Your task to perform on an android device: change timer sound Image 0: 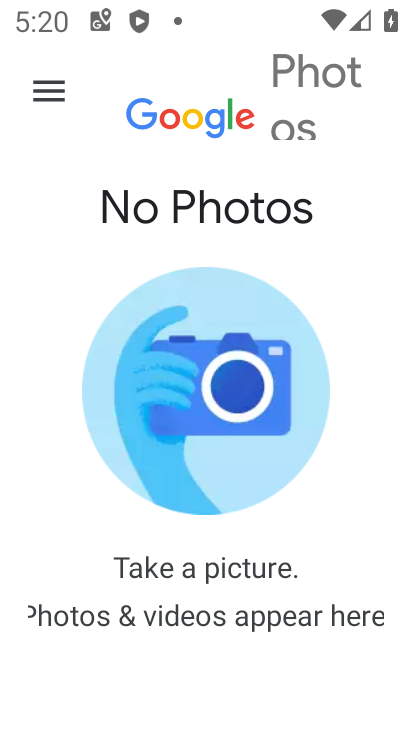
Step 0: press home button
Your task to perform on an android device: change timer sound Image 1: 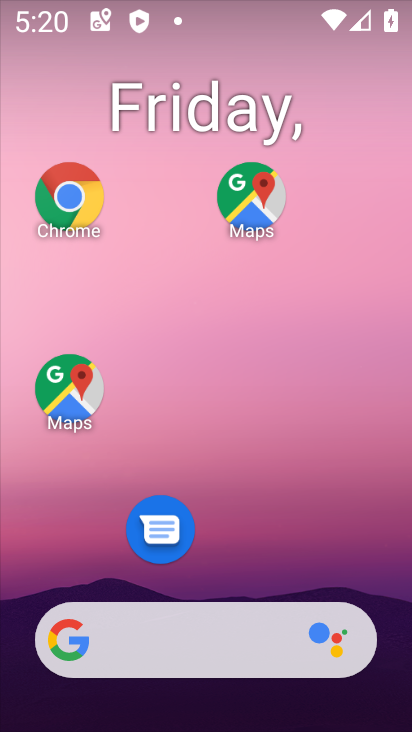
Step 1: drag from (234, 585) to (321, 147)
Your task to perform on an android device: change timer sound Image 2: 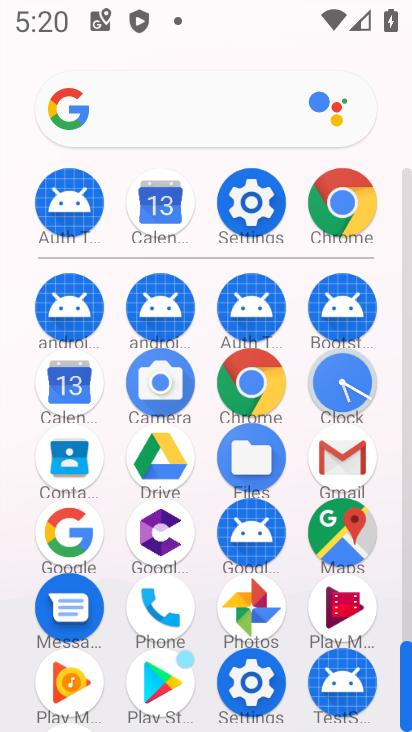
Step 2: click (334, 395)
Your task to perform on an android device: change timer sound Image 3: 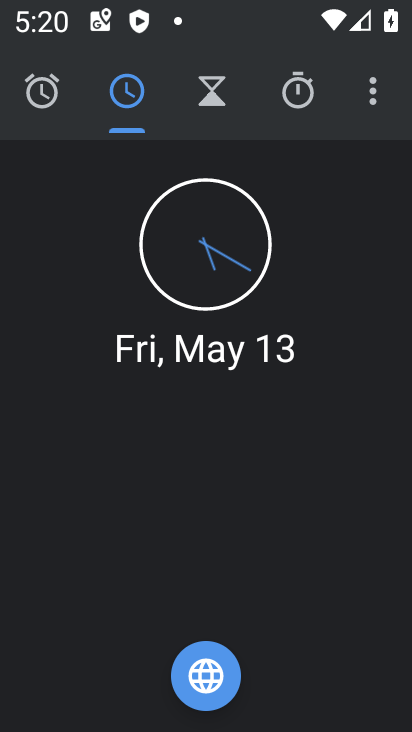
Step 3: click (372, 103)
Your task to perform on an android device: change timer sound Image 4: 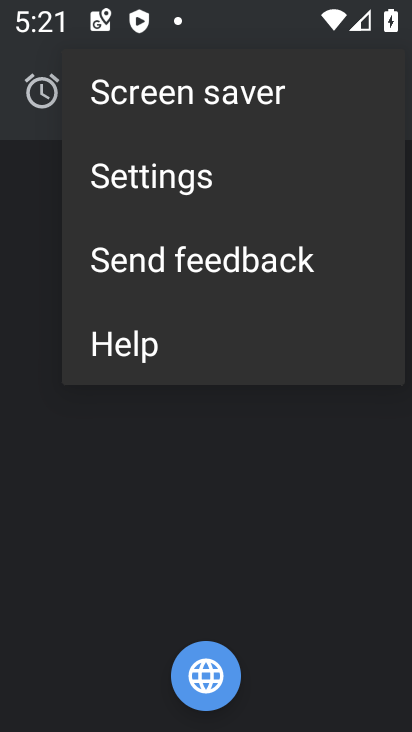
Step 4: click (149, 189)
Your task to perform on an android device: change timer sound Image 5: 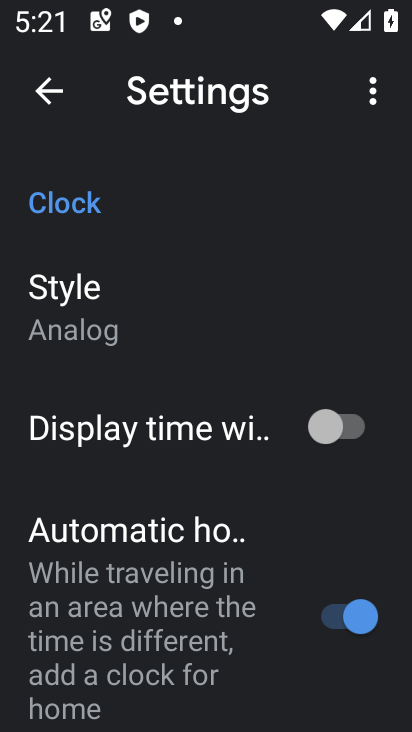
Step 5: drag from (126, 622) to (38, 394)
Your task to perform on an android device: change timer sound Image 6: 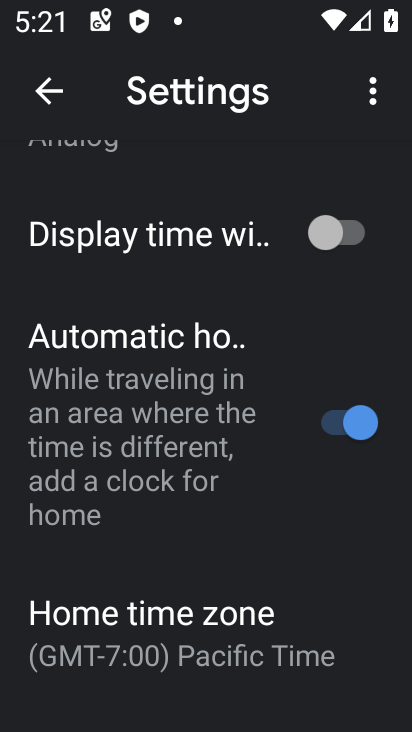
Step 6: drag from (159, 638) to (134, 357)
Your task to perform on an android device: change timer sound Image 7: 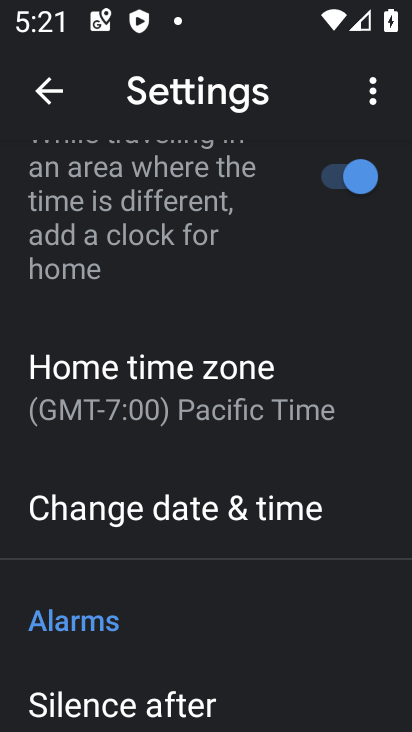
Step 7: drag from (236, 644) to (114, 369)
Your task to perform on an android device: change timer sound Image 8: 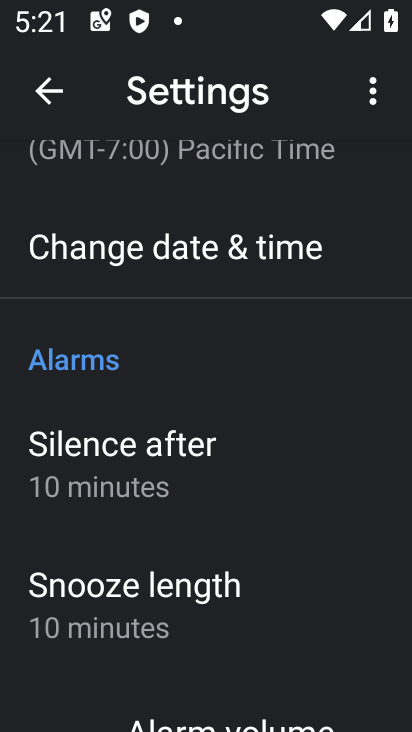
Step 8: drag from (187, 682) to (133, 327)
Your task to perform on an android device: change timer sound Image 9: 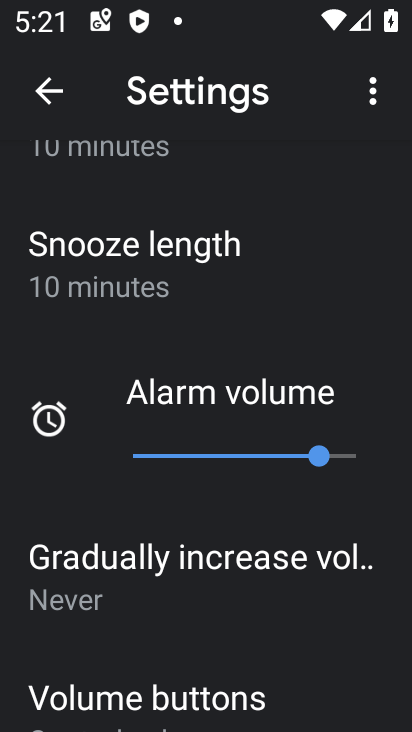
Step 9: drag from (203, 643) to (160, 410)
Your task to perform on an android device: change timer sound Image 10: 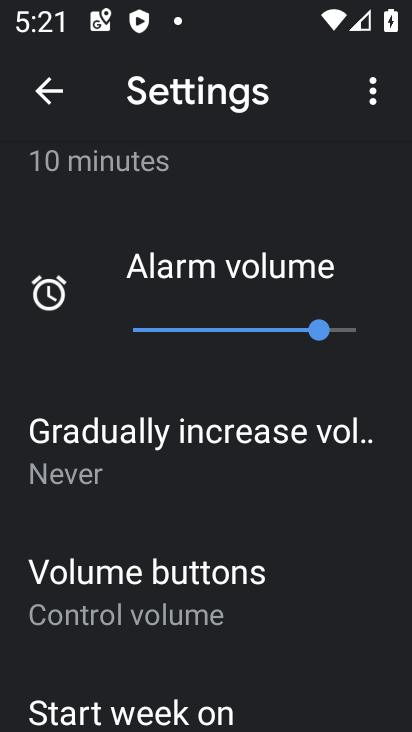
Step 10: drag from (245, 651) to (133, 452)
Your task to perform on an android device: change timer sound Image 11: 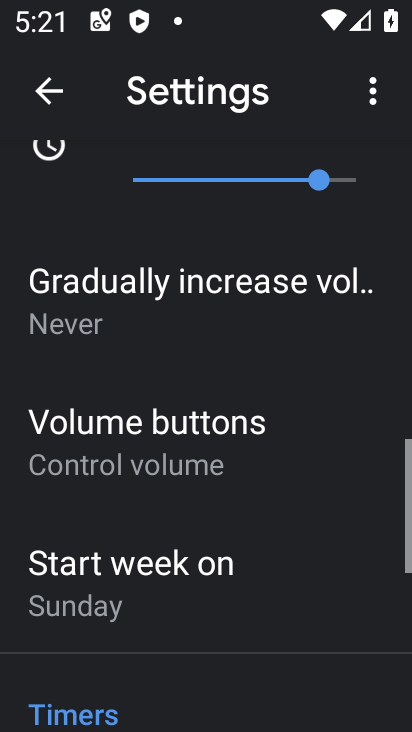
Step 11: drag from (203, 604) to (6, 486)
Your task to perform on an android device: change timer sound Image 12: 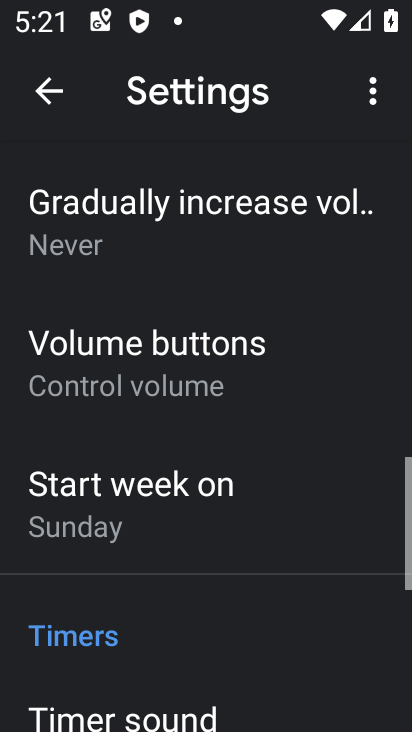
Step 12: drag from (115, 653) to (54, 499)
Your task to perform on an android device: change timer sound Image 13: 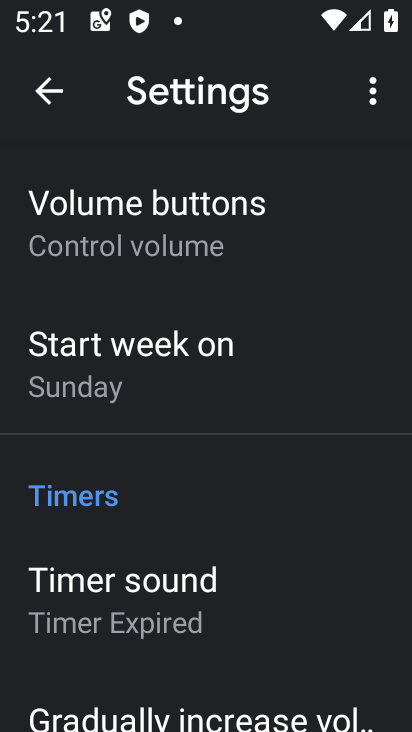
Step 13: click (191, 619)
Your task to perform on an android device: change timer sound Image 14: 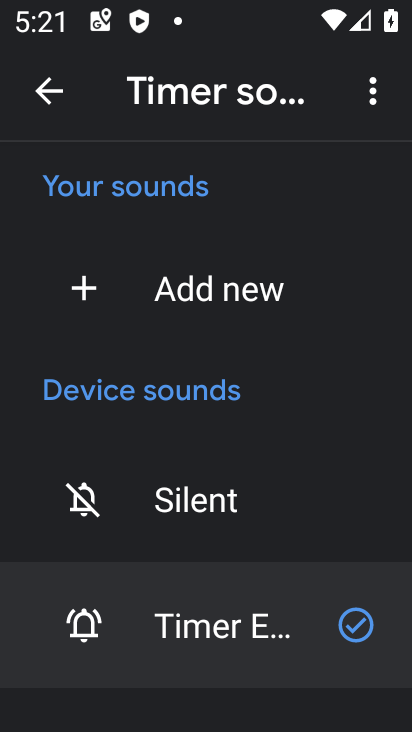
Step 14: drag from (175, 658) to (95, 501)
Your task to perform on an android device: change timer sound Image 15: 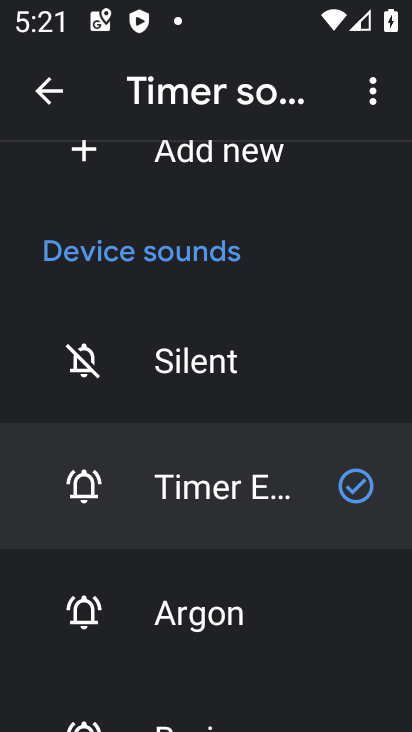
Step 15: click (198, 640)
Your task to perform on an android device: change timer sound Image 16: 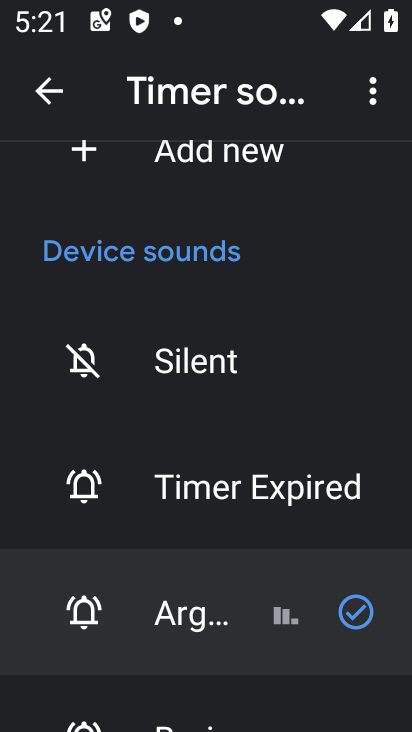
Step 16: task complete